Your task to perform on an android device: set default search engine in the chrome app Image 0: 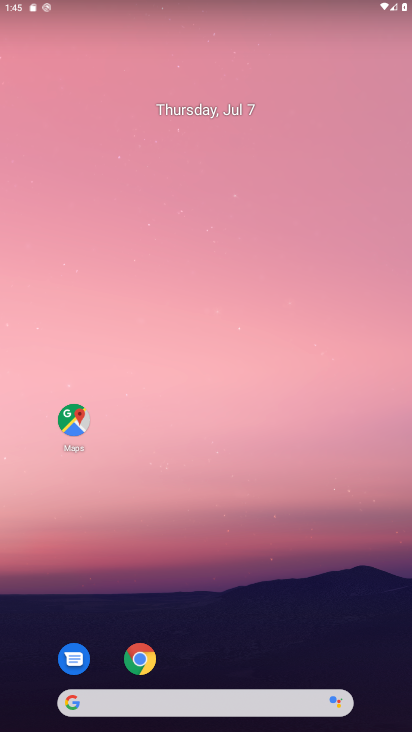
Step 0: press home button
Your task to perform on an android device: set default search engine in the chrome app Image 1: 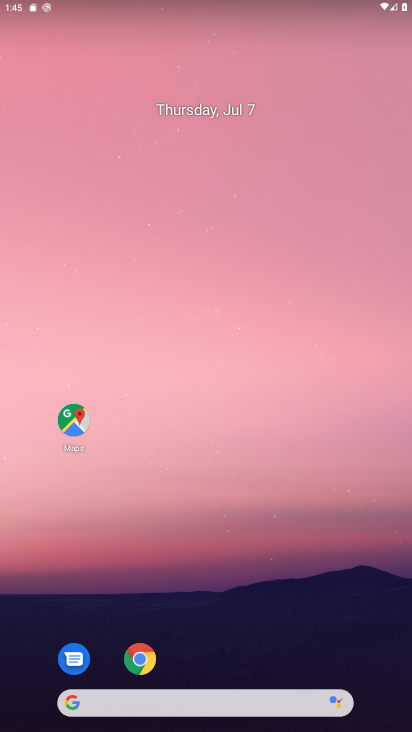
Step 1: press home button
Your task to perform on an android device: set default search engine in the chrome app Image 2: 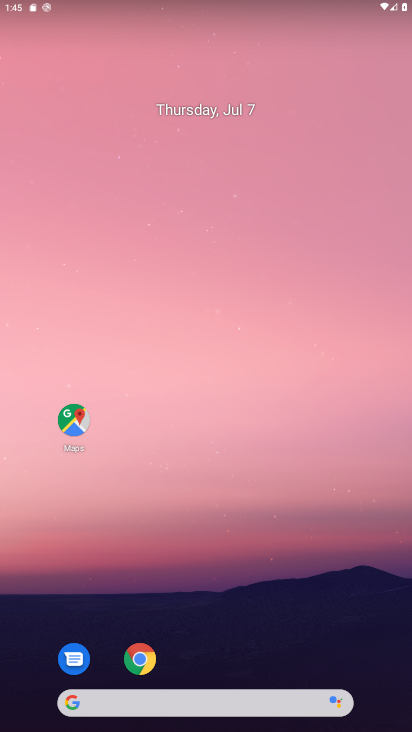
Step 2: drag from (211, 658) to (219, 24)
Your task to perform on an android device: set default search engine in the chrome app Image 3: 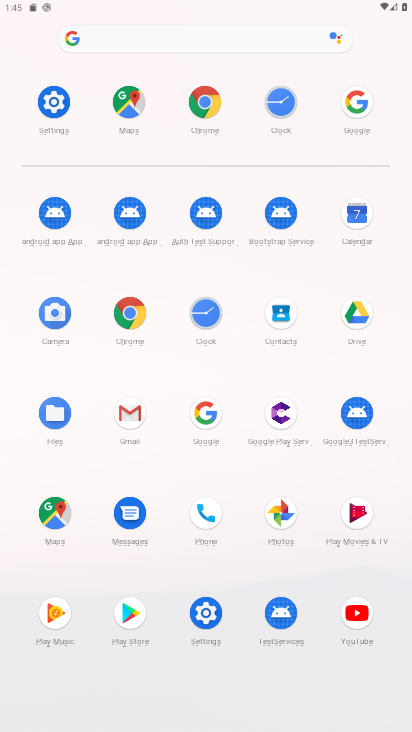
Step 3: click (205, 96)
Your task to perform on an android device: set default search engine in the chrome app Image 4: 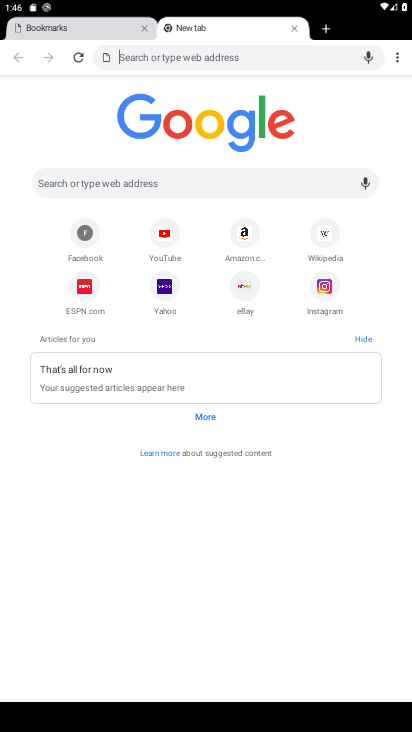
Step 4: click (399, 59)
Your task to perform on an android device: set default search engine in the chrome app Image 5: 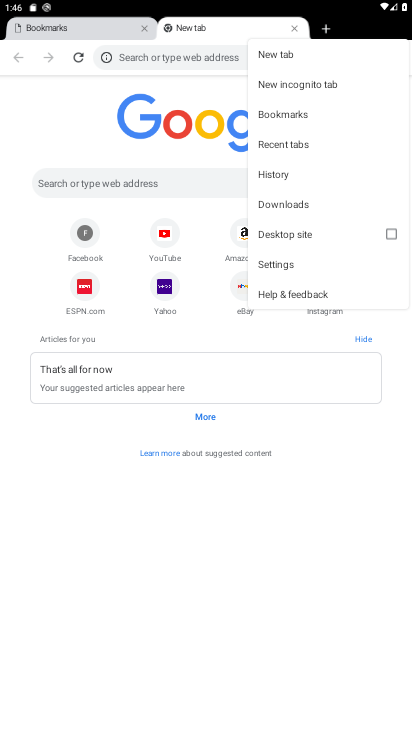
Step 5: click (285, 262)
Your task to perform on an android device: set default search engine in the chrome app Image 6: 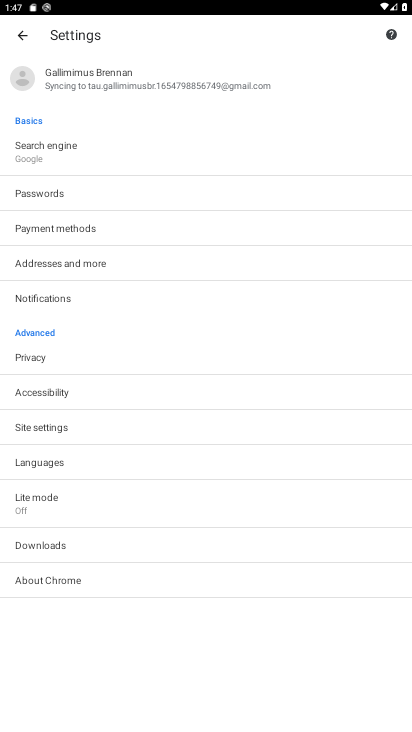
Step 6: click (54, 154)
Your task to perform on an android device: set default search engine in the chrome app Image 7: 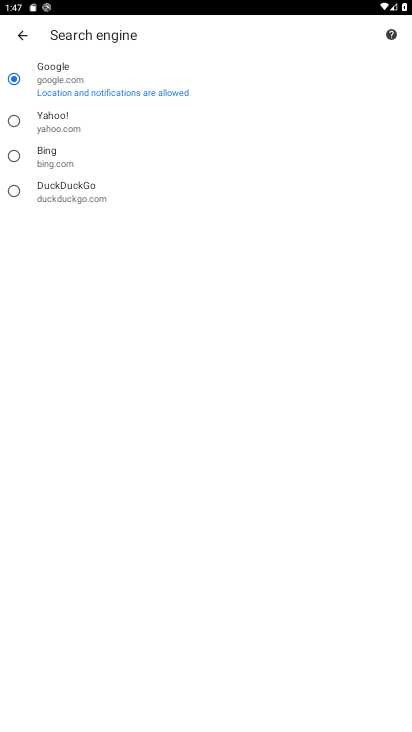
Step 7: click (17, 153)
Your task to perform on an android device: set default search engine in the chrome app Image 8: 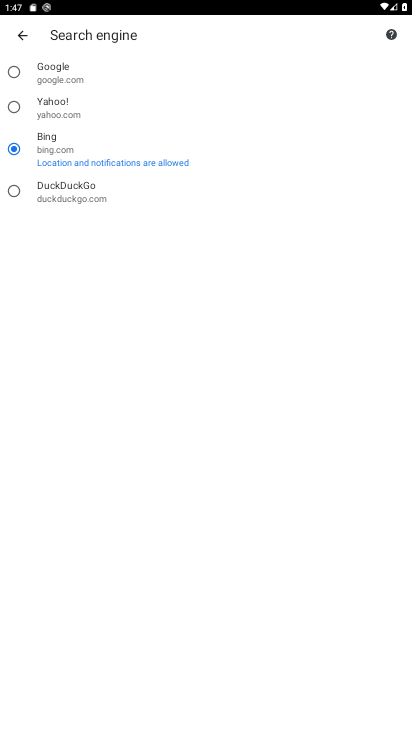
Step 8: task complete